Your task to perform on an android device: Go to display settings Image 0: 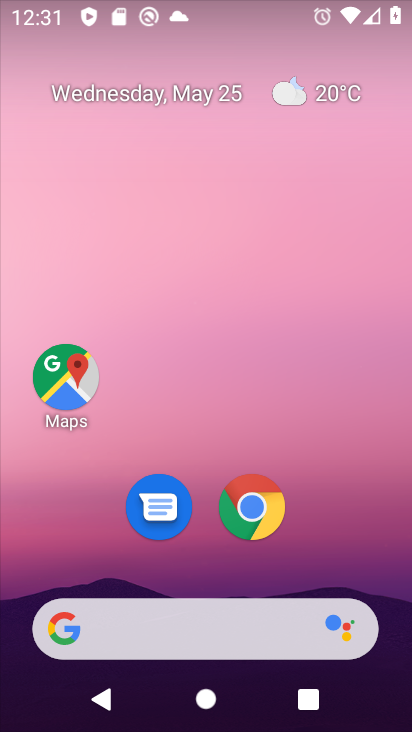
Step 0: drag from (336, 541) to (268, 119)
Your task to perform on an android device: Go to display settings Image 1: 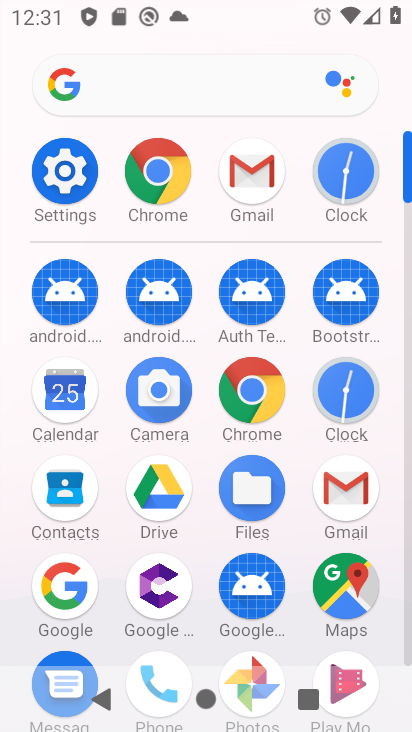
Step 1: click (64, 165)
Your task to perform on an android device: Go to display settings Image 2: 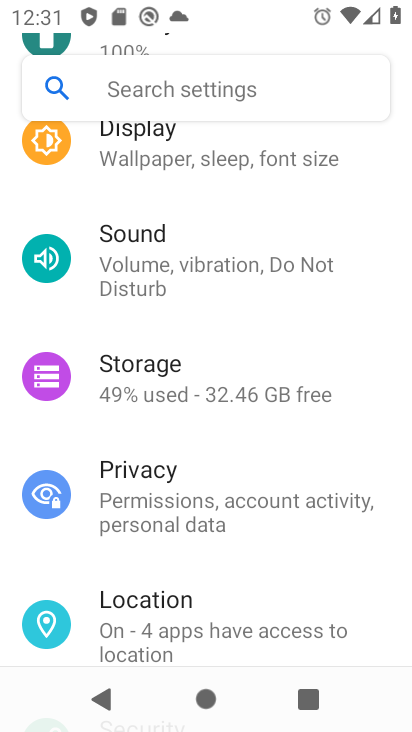
Step 2: click (204, 152)
Your task to perform on an android device: Go to display settings Image 3: 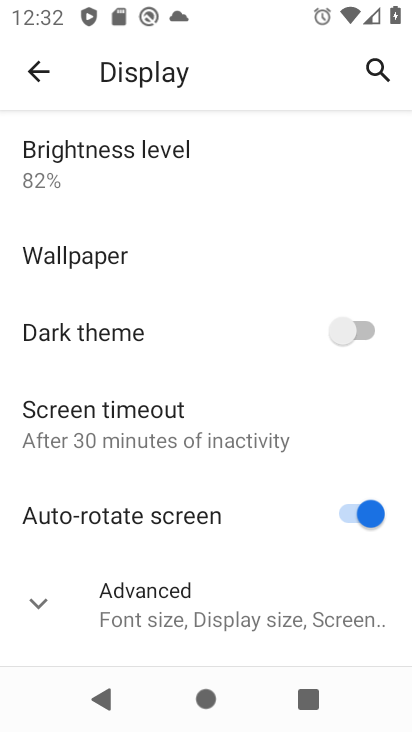
Step 3: task complete